Your task to perform on an android device: Open Google Chrome Image 0: 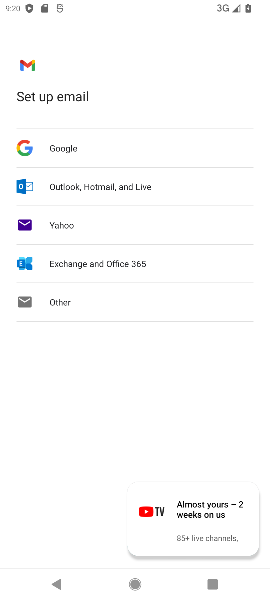
Step 0: press home button
Your task to perform on an android device: Open Google Chrome Image 1: 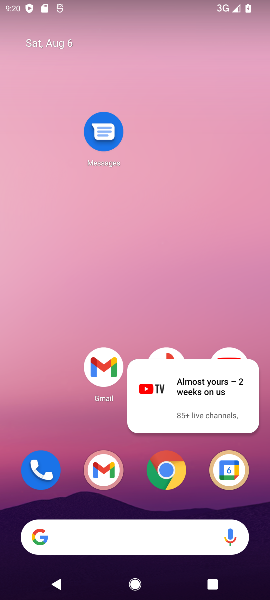
Step 1: click (180, 476)
Your task to perform on an android device: Open Google Chrome Image 2: 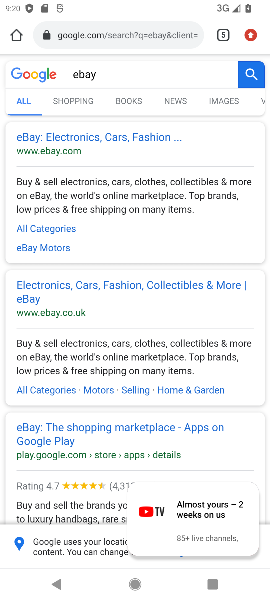
Step 2: task complete